Your task to perform on an android device: Toggle the flashlight Image 0: 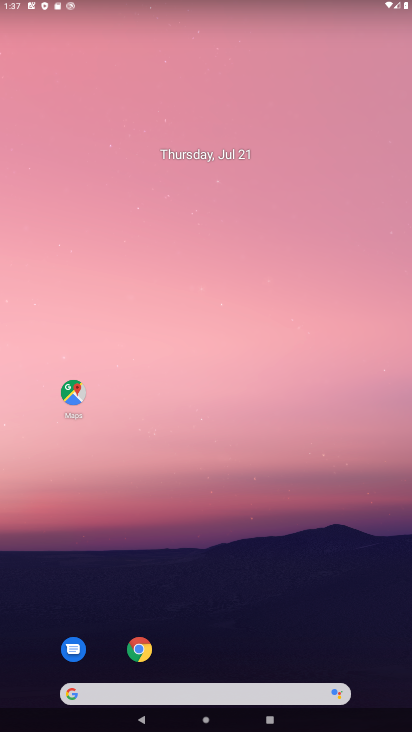
Step 0: drag from (240, 717) to (241, 193)
Your task to perform on an android device: Toggle the flashlight Image 1: 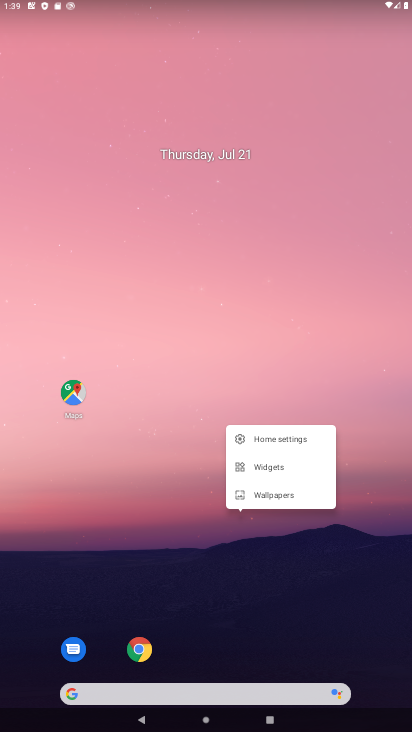
Step 1: click (239, 640)
Your task to perform on an android device: Toggle the flashlight Image 2: 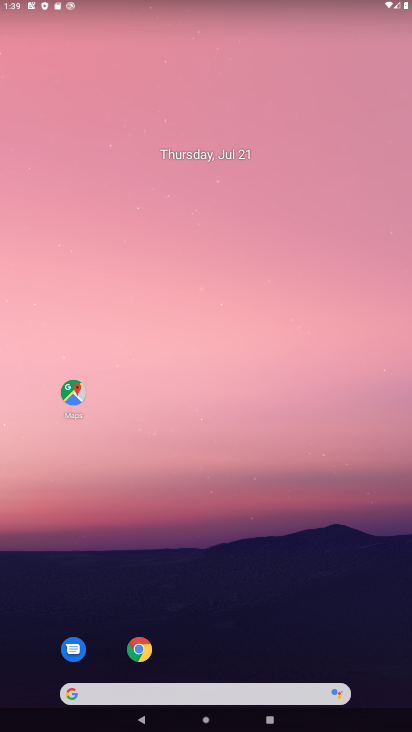
Step 2: click (239, 640)
Your task to perform on an android device: Toggle the flashlight Image 3: 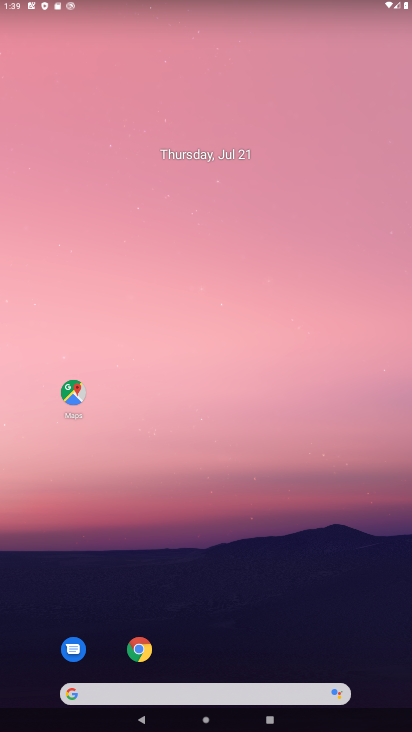
Step 3: drag from (237, 667) to (240, 48)
Your task to perform on an android device: Toggle the flashlight Image 4: 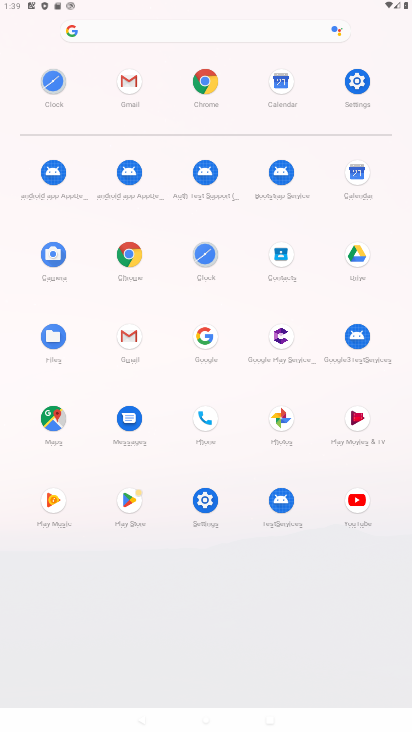
Step 4: click (355, 76)
Your task to perform on an android device: Toggle the flashlight Image 5: 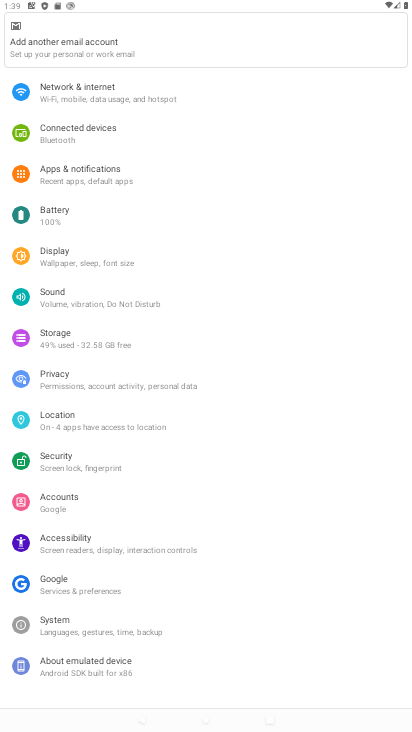
Step 5: task complete